Your task to perform on an android device: Go to display settings Image 0: 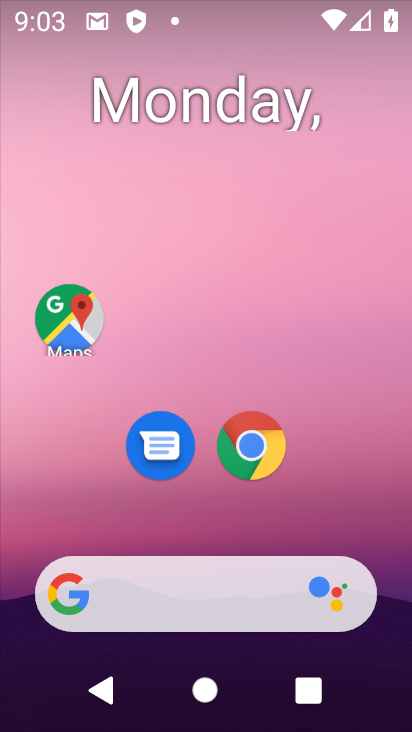
Step 0: drag from (260, 659) to (268, 55)
Your task to perform on an android device: Go to display settings Image 1: 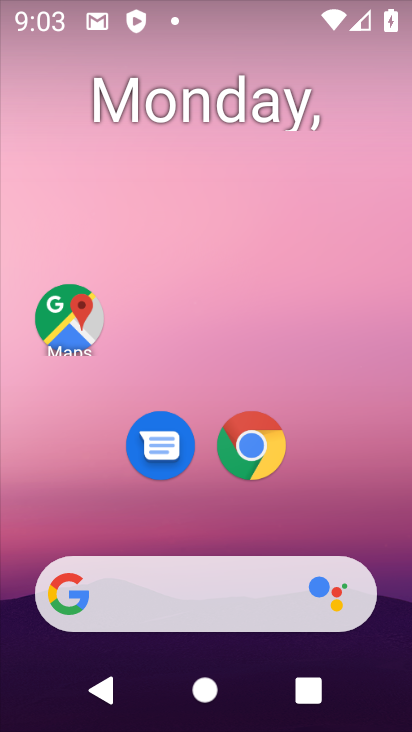
Step 1: drag from (243, 670) to (283, 61)
Your task to perform on an android device: Go to display settings Image 2: 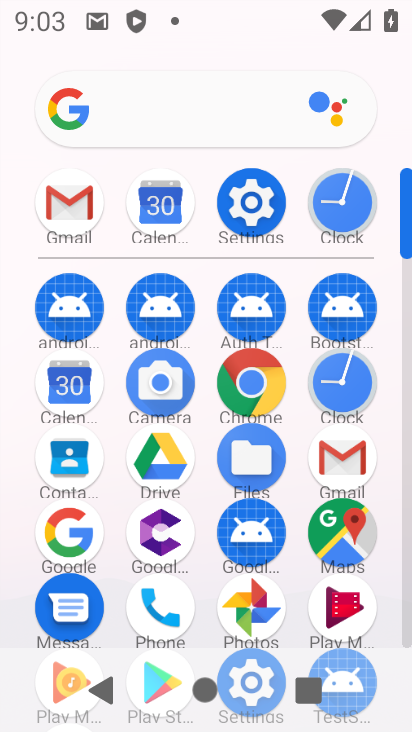
Step 2: click (262, 203)
Your task to perform on an android device: Go to display settings Image 3: 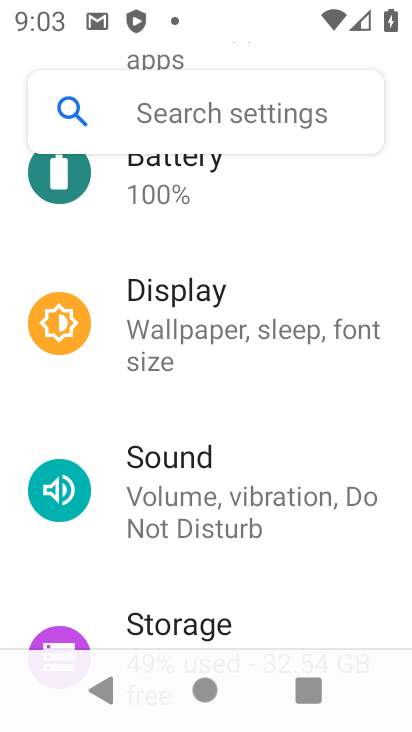
Step 3: click (277, 274)
Your task to perform on an android device: Go to display settings Image 4: 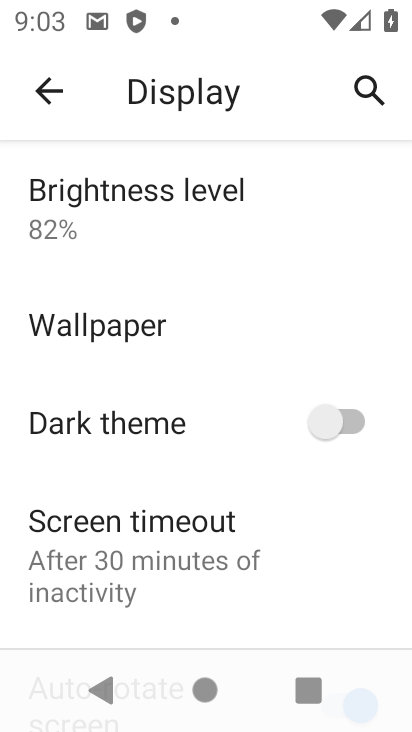
Step 4: task complete